Your task to perform on an android device: find which apps use the phone's location Image 0: 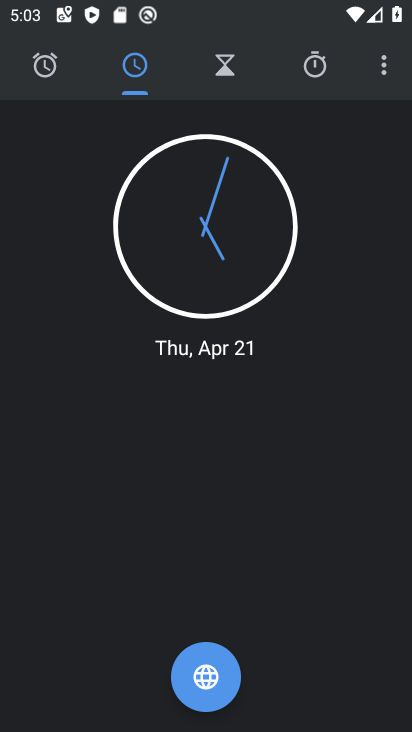
Step 0: press home button
Your task to perform on an android device: find which apps use the phone's location Image 1: 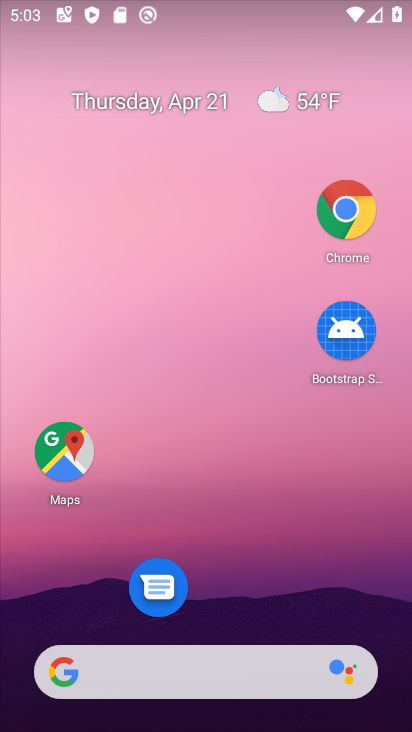
Step 1: drag from (269, 543) to (340, 25)
Your task to perform on an android device: find which apps use the phone's location Image 2: 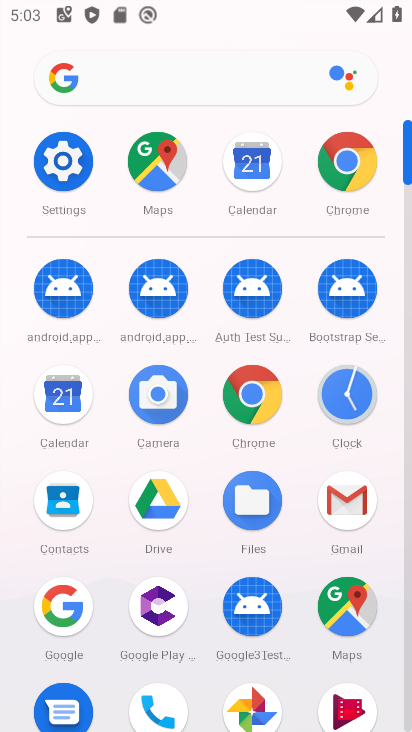
Step 2: drag from (189, 334) to (207, 23)
Your task to perform on an android device: find which apps use the phone's location Image 3: 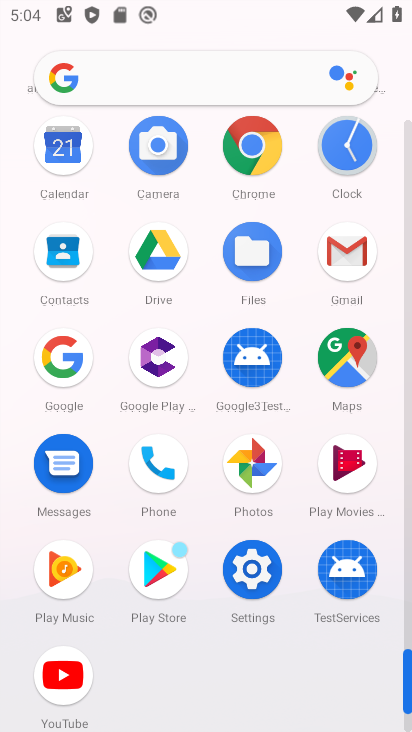
Step 3: click (142, 465)
Your task to perform on an android device: find which apps use the phone's location Image 4: 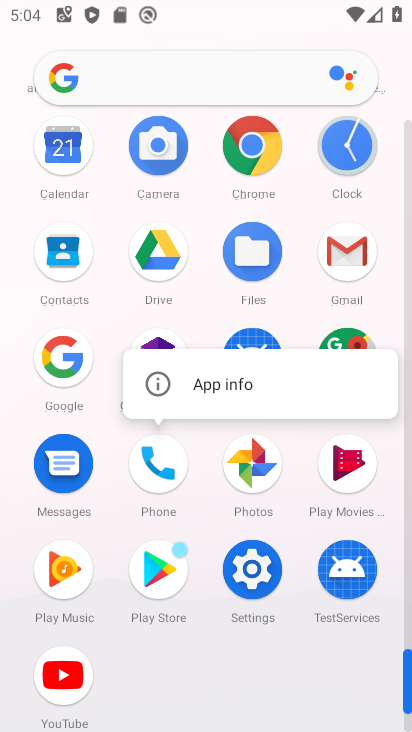
Step 4: click (211, 381)
Your task to perform on an android device: find which apps use the phone's location Image 5: 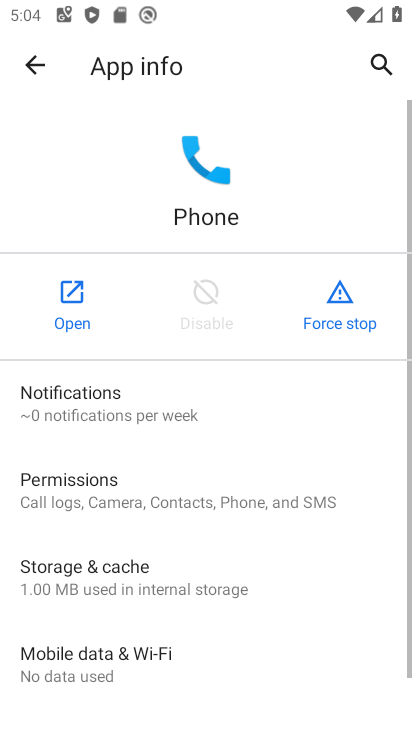
Step 5: drag from (302, 624) to (305, 382)
Your task to perform on an android device: find which apps use the phone's location Image 6: 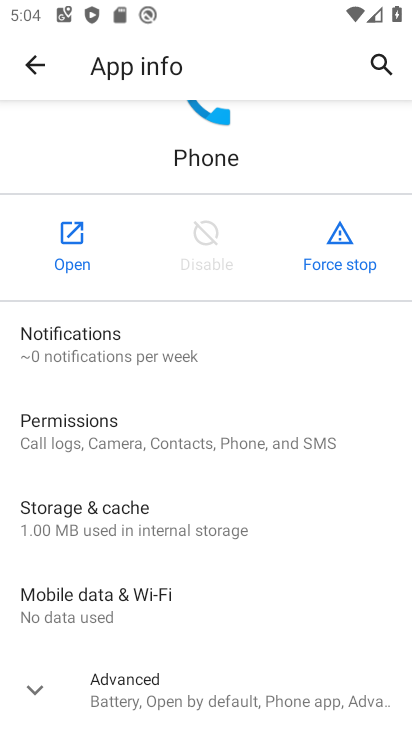
Step 6: click (88, 424)
Your task to perform on an android device: find which apps use the phone's location Image 7: 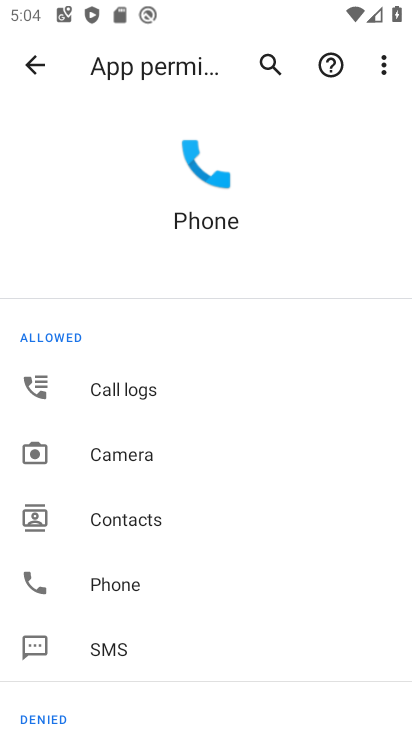
Step 7: drag from (197, 579) to (235, 349)
Your task to perform on an android device: find which apps use the phone's location Image 8: 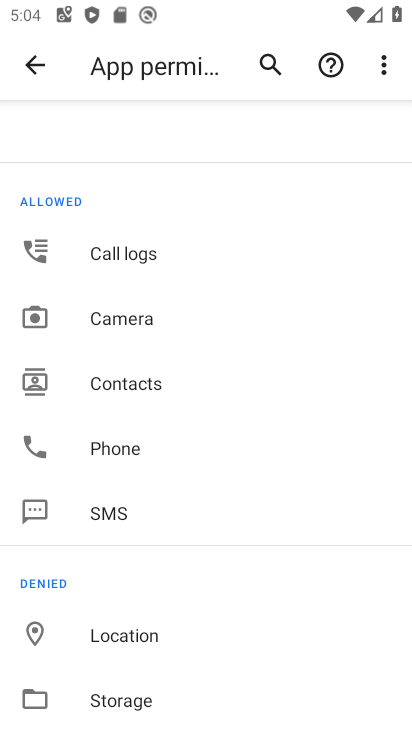
Step 8: click (117, 636)
Your task to perform on an android device: find which apps use the phone's location Image 9: 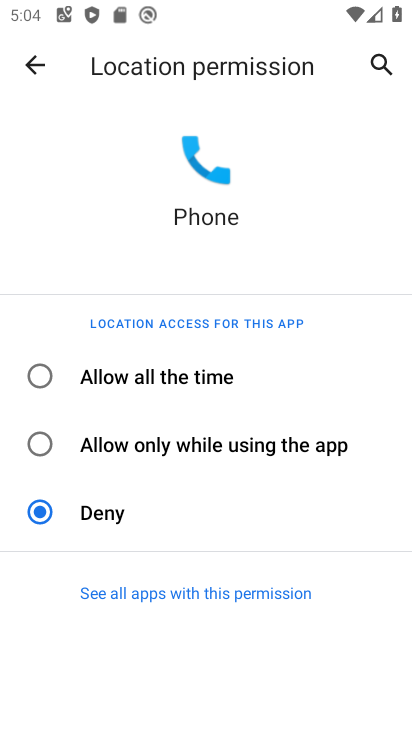
Step 9: task complete